Your task to perform on an android device: Go to Yahoo.com Image 0: 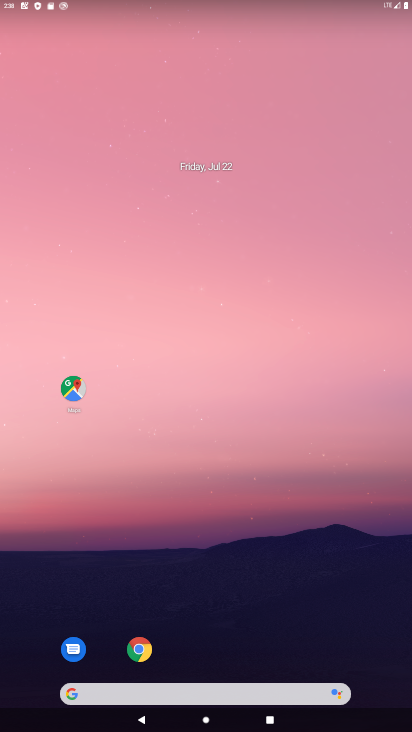
Step 0: drag from (195, 637) to (271, 27)
Your task to perform on an android device: Go to Yahoo.com Image 1: 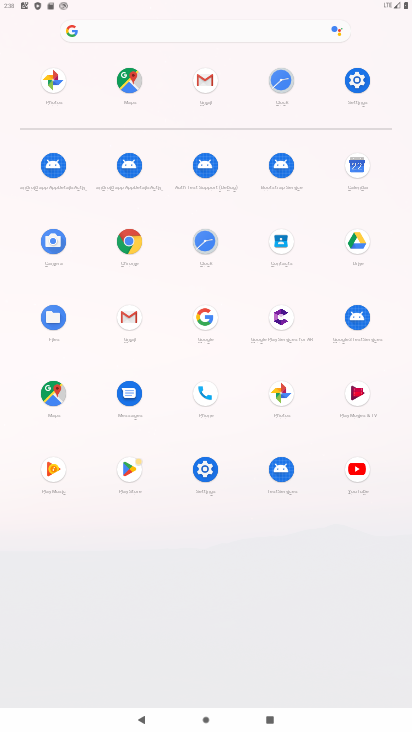
Step 1: click (199, 31)
Your task to perform on an android device: Go to Yahoo.com Image 2: 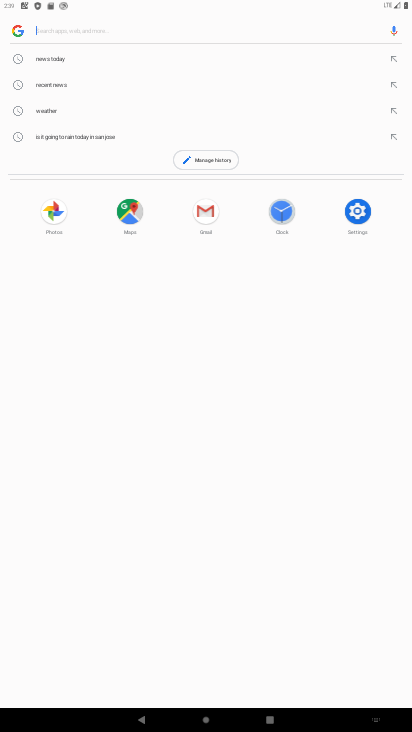
Step 2: type "yahoo.ocm"
Your task to perform on an android device: Go to Yahoo.com Image 3: 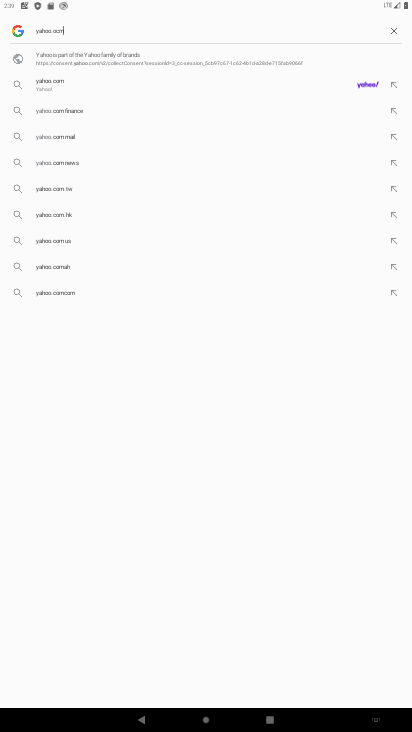
Step 3: click (74, 74)
Your task to perform on an android device: Go to Yahoo.com Image 4: 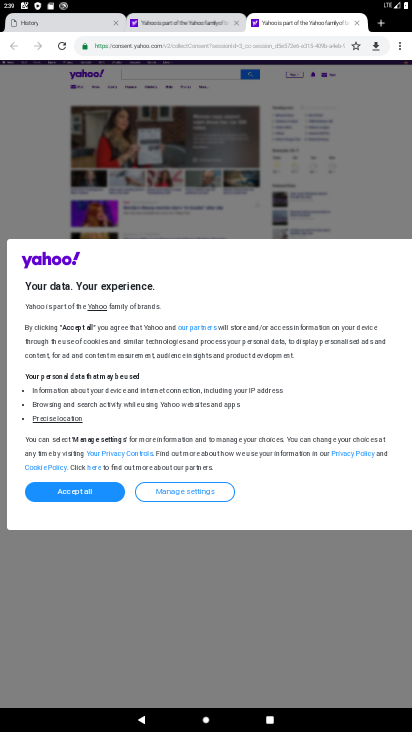
Step 4: task complete